Your task to perform on an android device: Go to display settings Image 0: 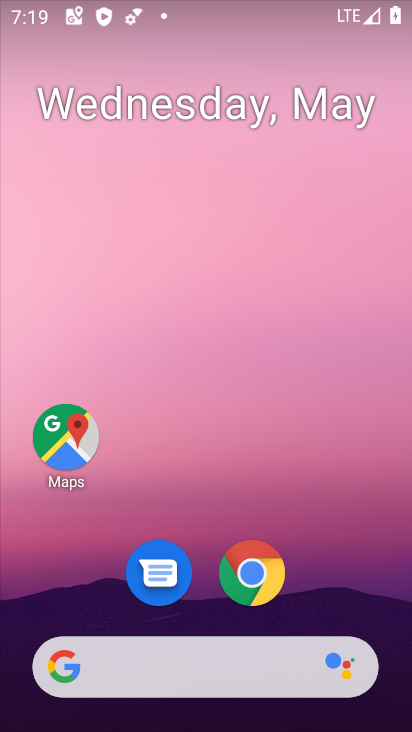
Step 0: drag from (264, 393) to (175, 106)
Your task to perform on an android device: Go to display settings Image 1: 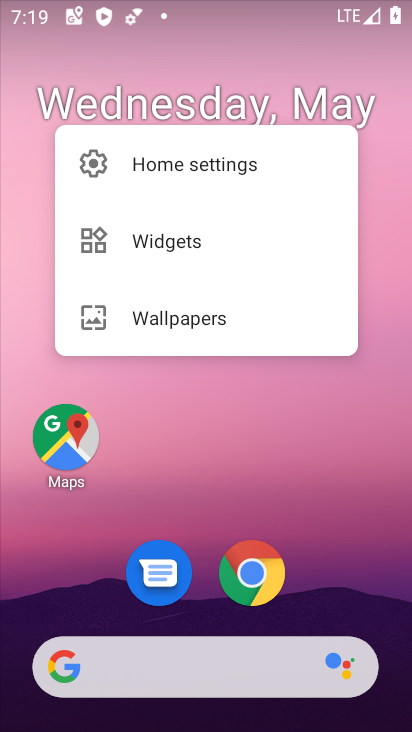
Step 1: click (304, 499)
Your task to perform on an android device: Go to display settings Image 2: 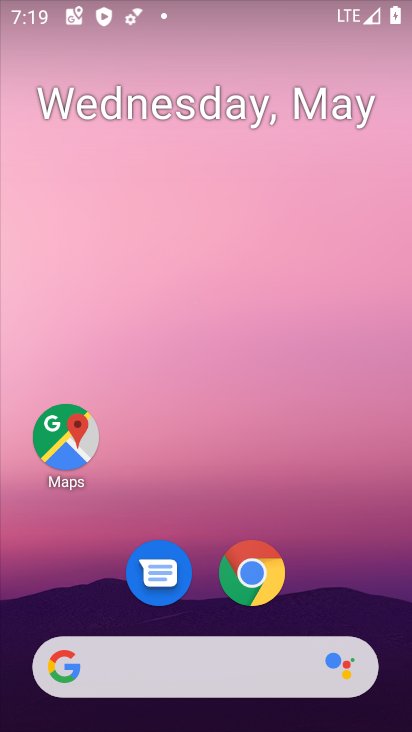
Step 2: drag from (301, 591) to (299, 173)
Your task to perform on an android device: Go to display settings Image 3: 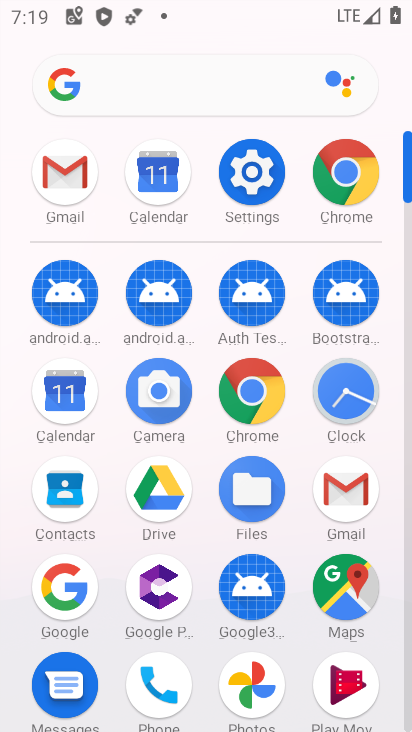
Step 3: click (256, 203)
Your task to perform on an android device: Go to display settings Image 4: 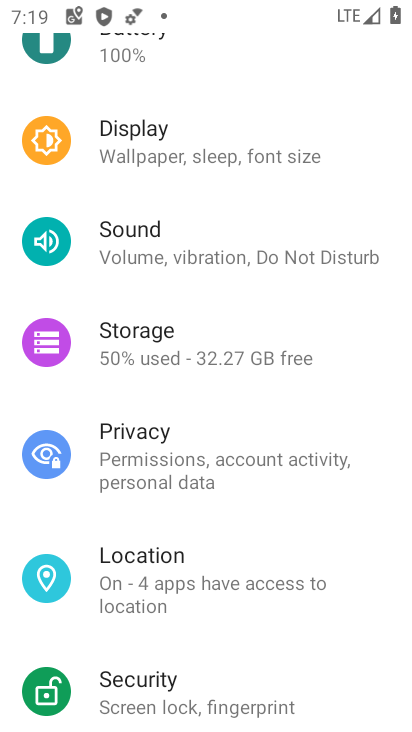
Step 4: click (145, 162)
Your task to perform on an android device: Go to display settings Image 5: 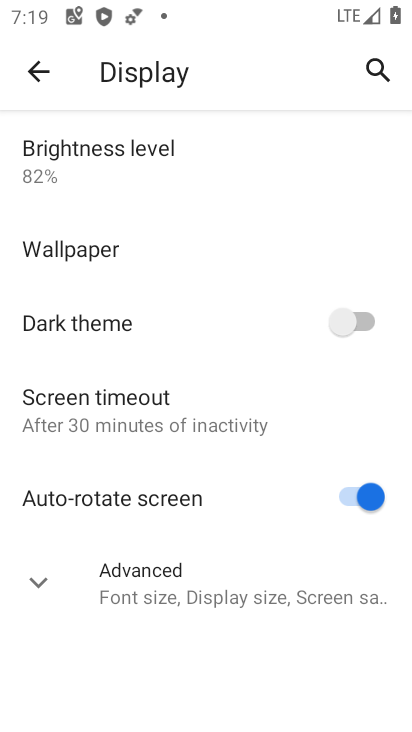
Step 5: task complete